Your task to perform on an android device: Add asus rog to the cart on bestbuy Image 0: 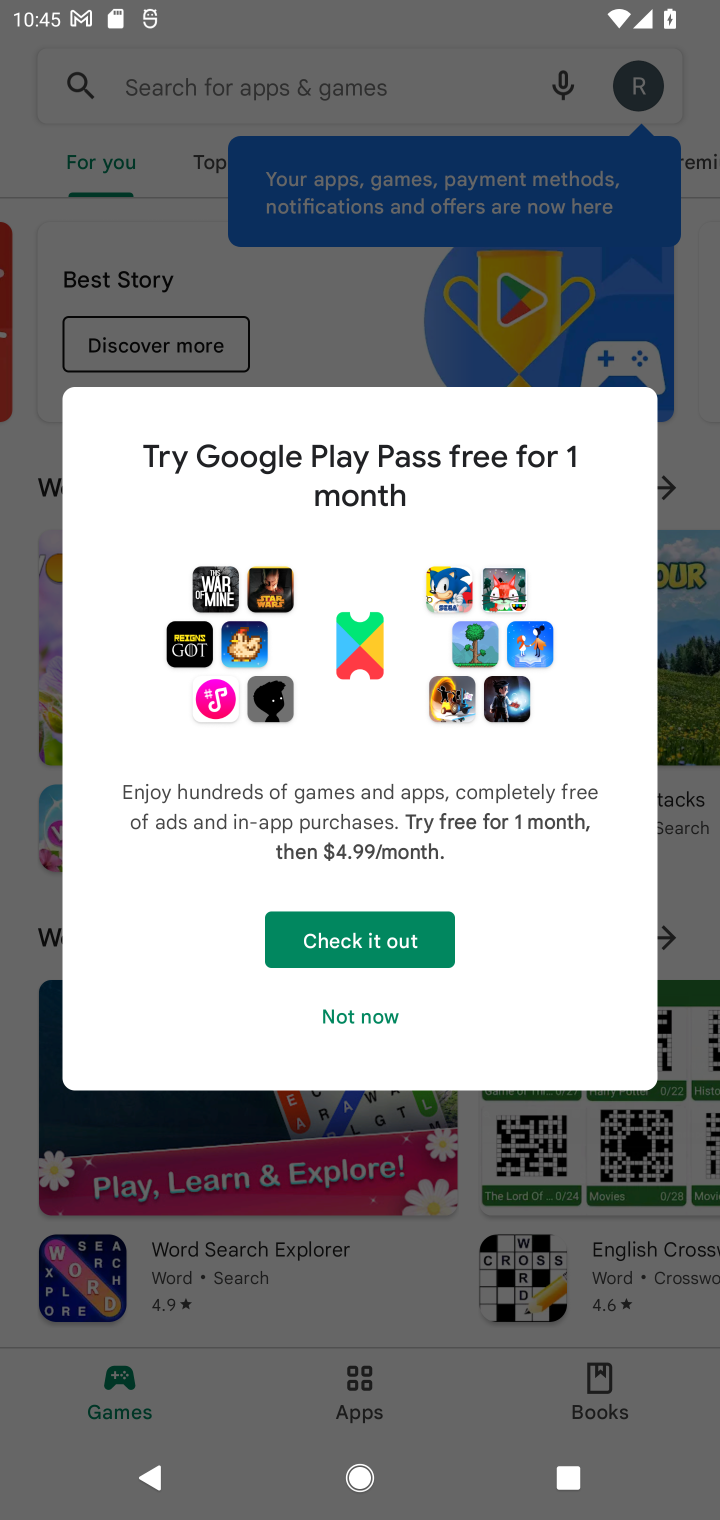
Step 0: click (361, 1013)
Your task to perform on an android device: Add asus rog to the cart on bestbuy Image 1: 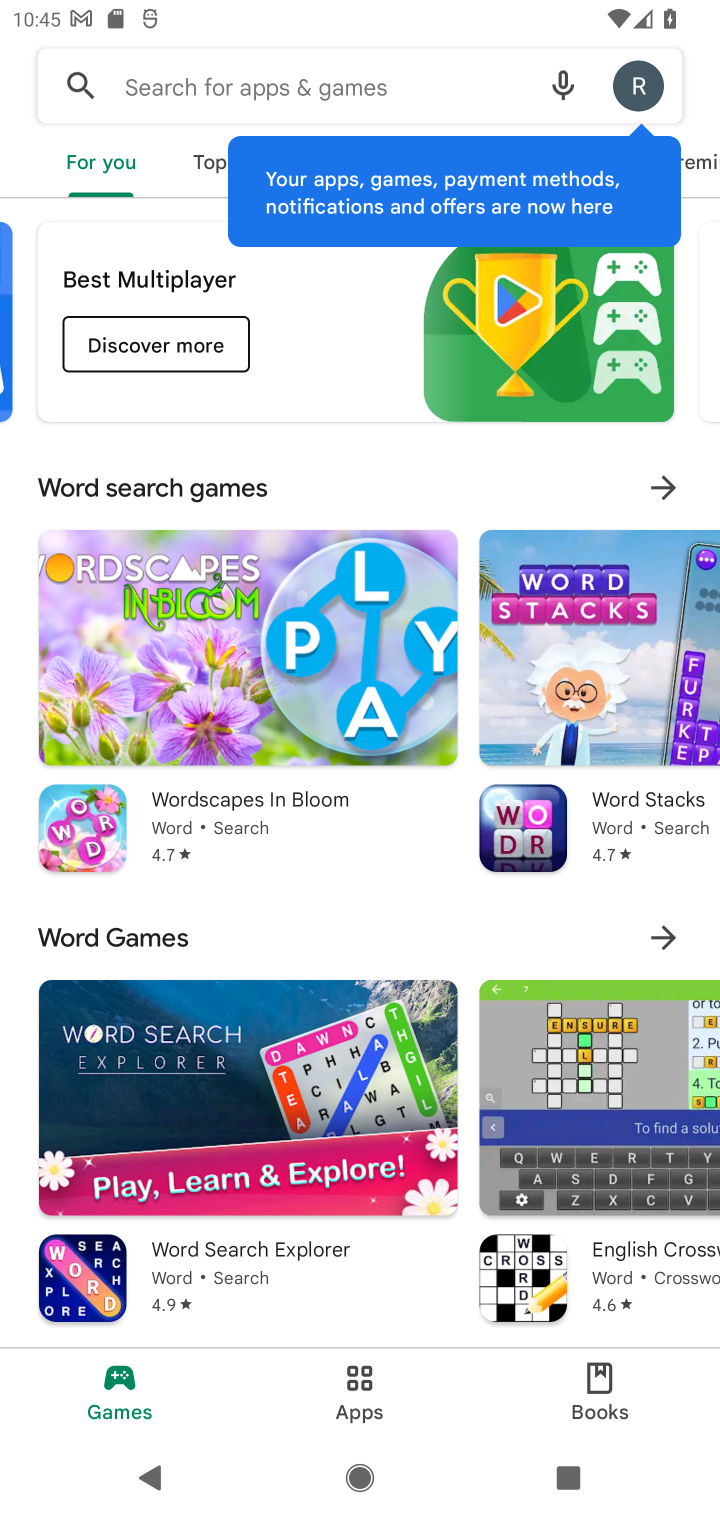
Step 1: press home button
Your task to perform on an android device: Add asus rog to the cart on bestbuy Image 2: 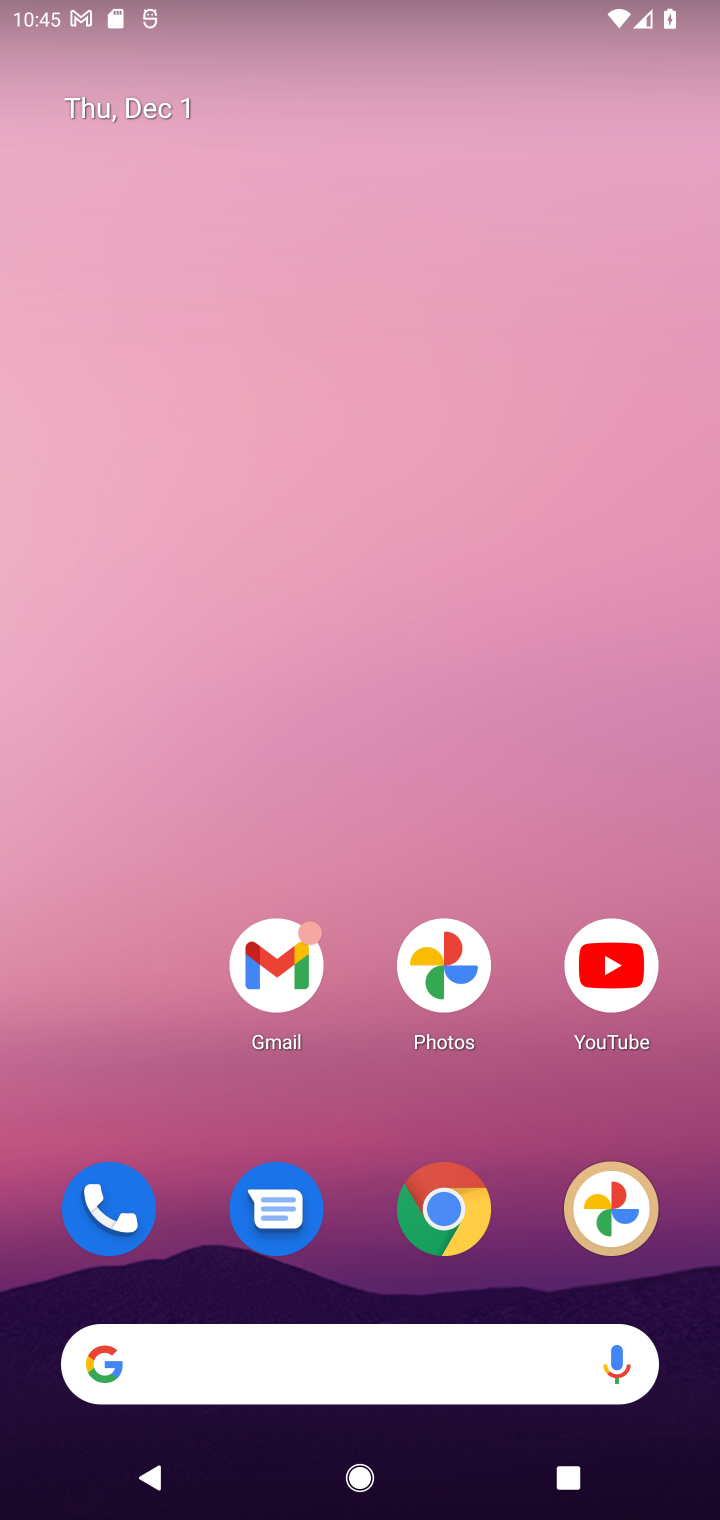
Step 2: click (430, 1204)
Your task to perform on an android device: Add asus rog to the cart on bestbuy Image 3: 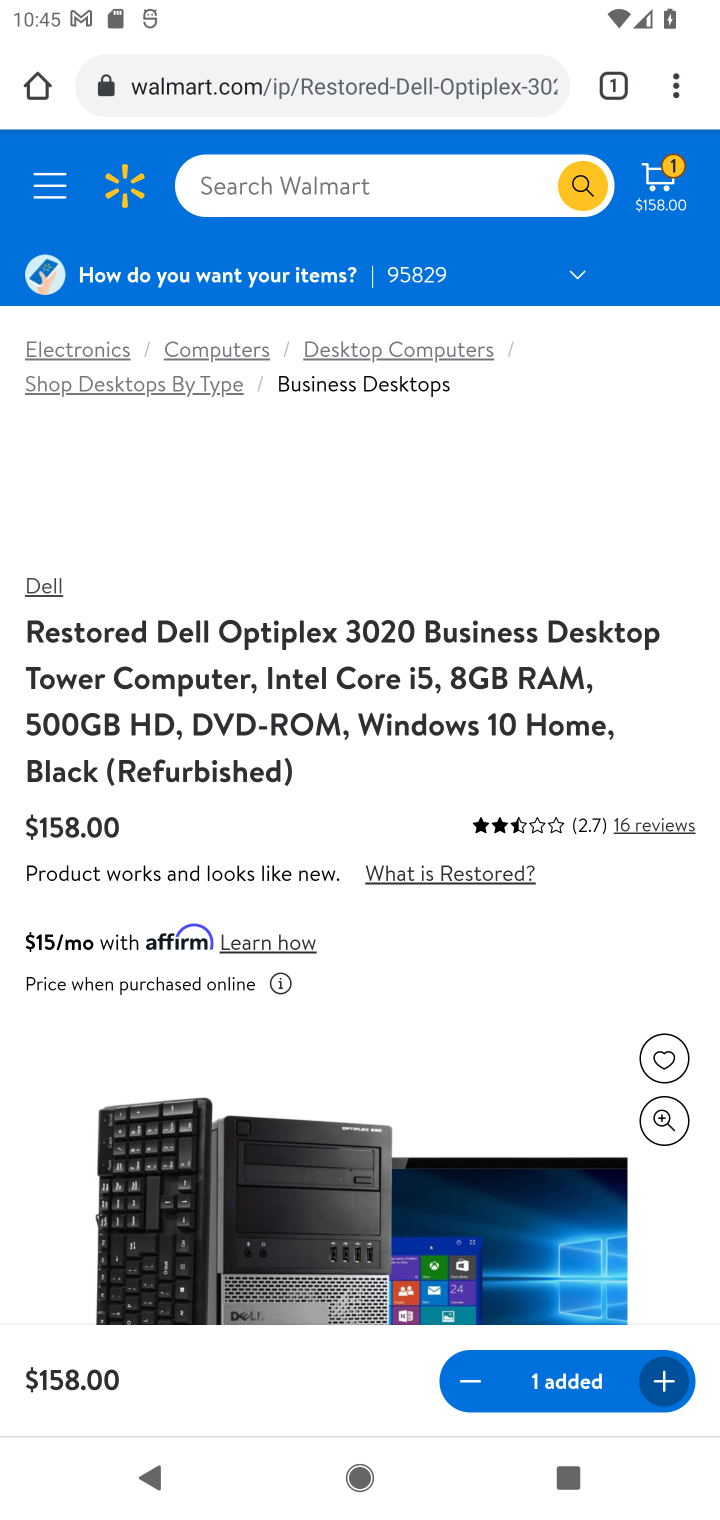
Step 3: click (282, 90)
Your task to perform on an android device: Add asus rog to the cart on bestbuy Image 4: 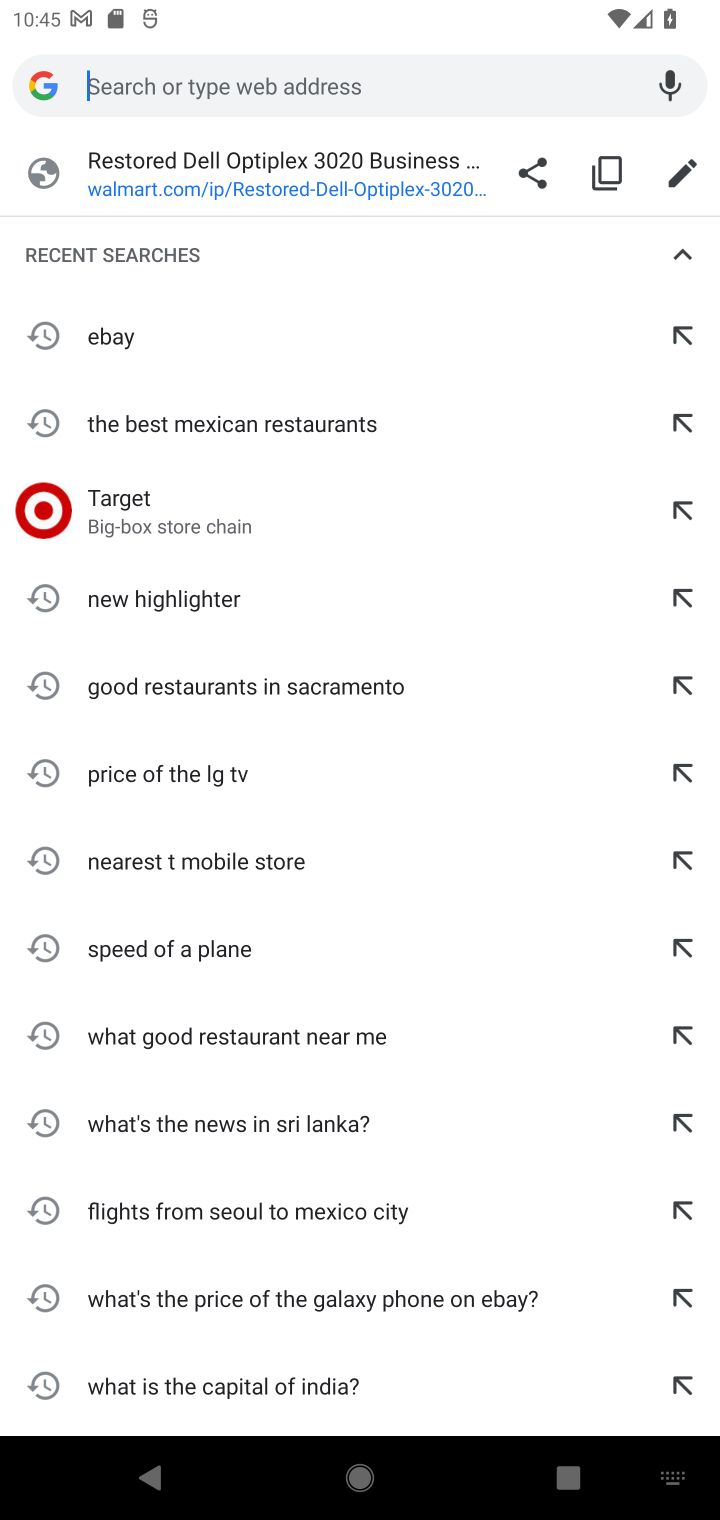
Step 4: type "bestbuy"
Your task to perform on an android device: Add asus rog to the cart on bestbuy Image 5: 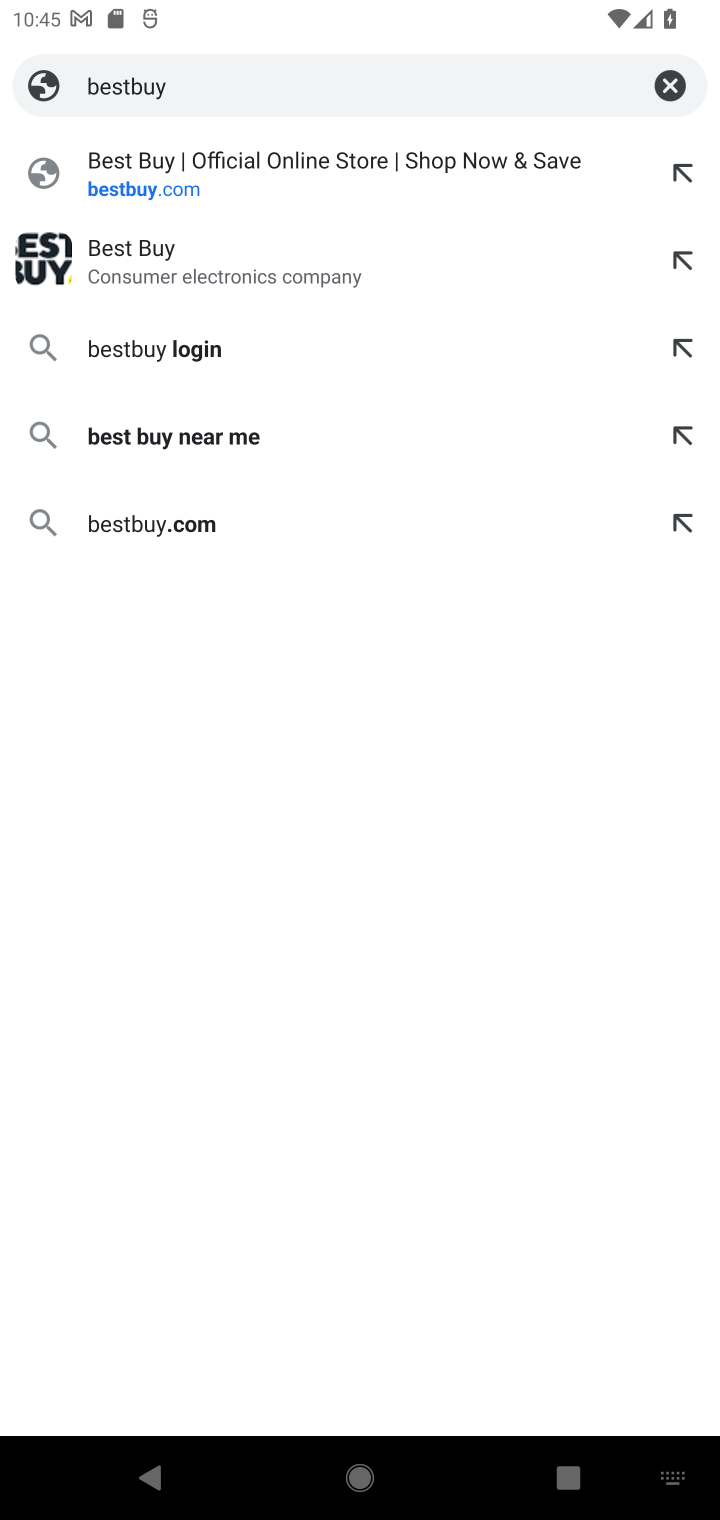
Step 5: click (203, 184)
Your task to perform on an android device: Add asus rog to the cart on bestbuy Image 6: 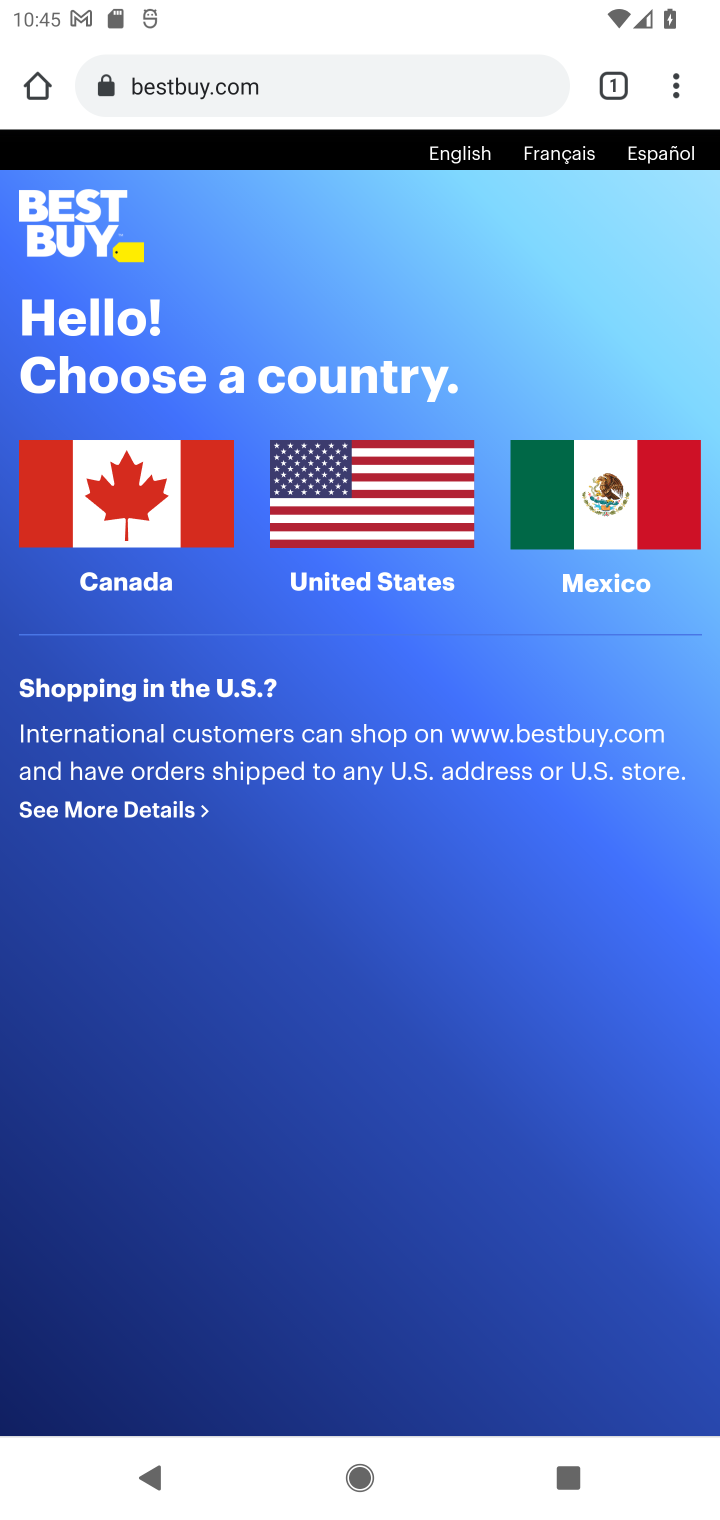
Step 6: click (381, 478)
Your task to perform on an android device: Add asus rog to the cart on bestbuy Image 7: 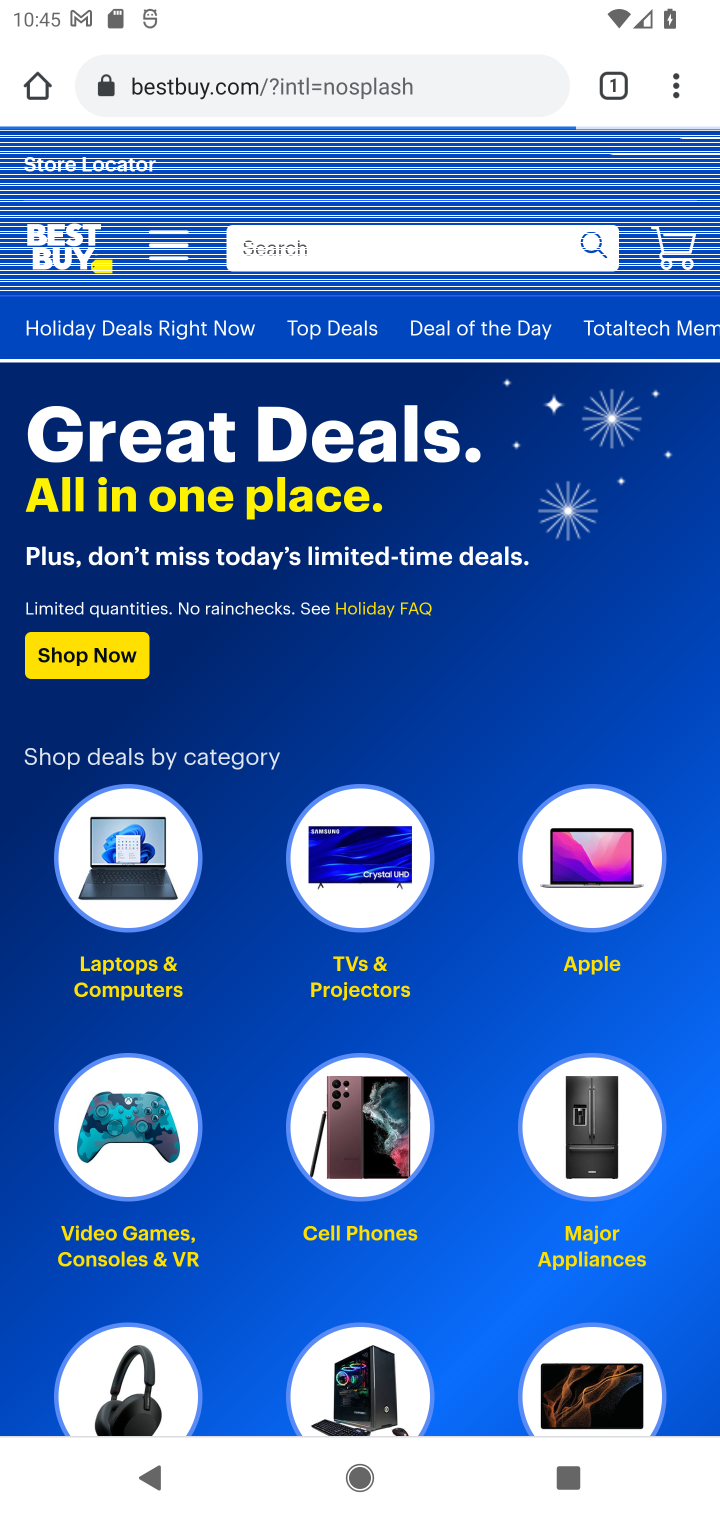
Step 7: click (321, 251)
Your task to perform on an android device: Add asus rog to the cart on bestbuy Image 8: 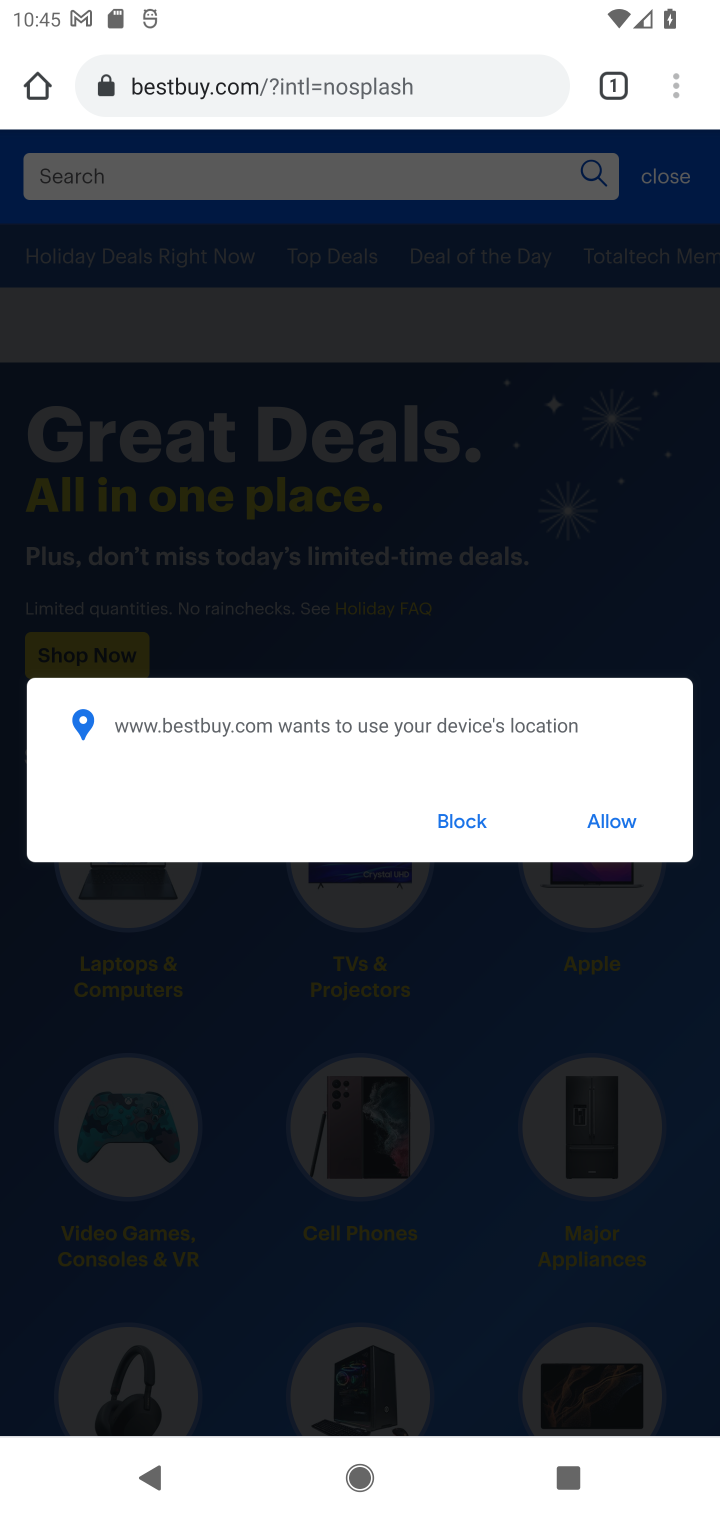
Step 8: click (462, 824)
Your task to perform on an android device: Add asus rog to the cart on bestbuy Image 9: 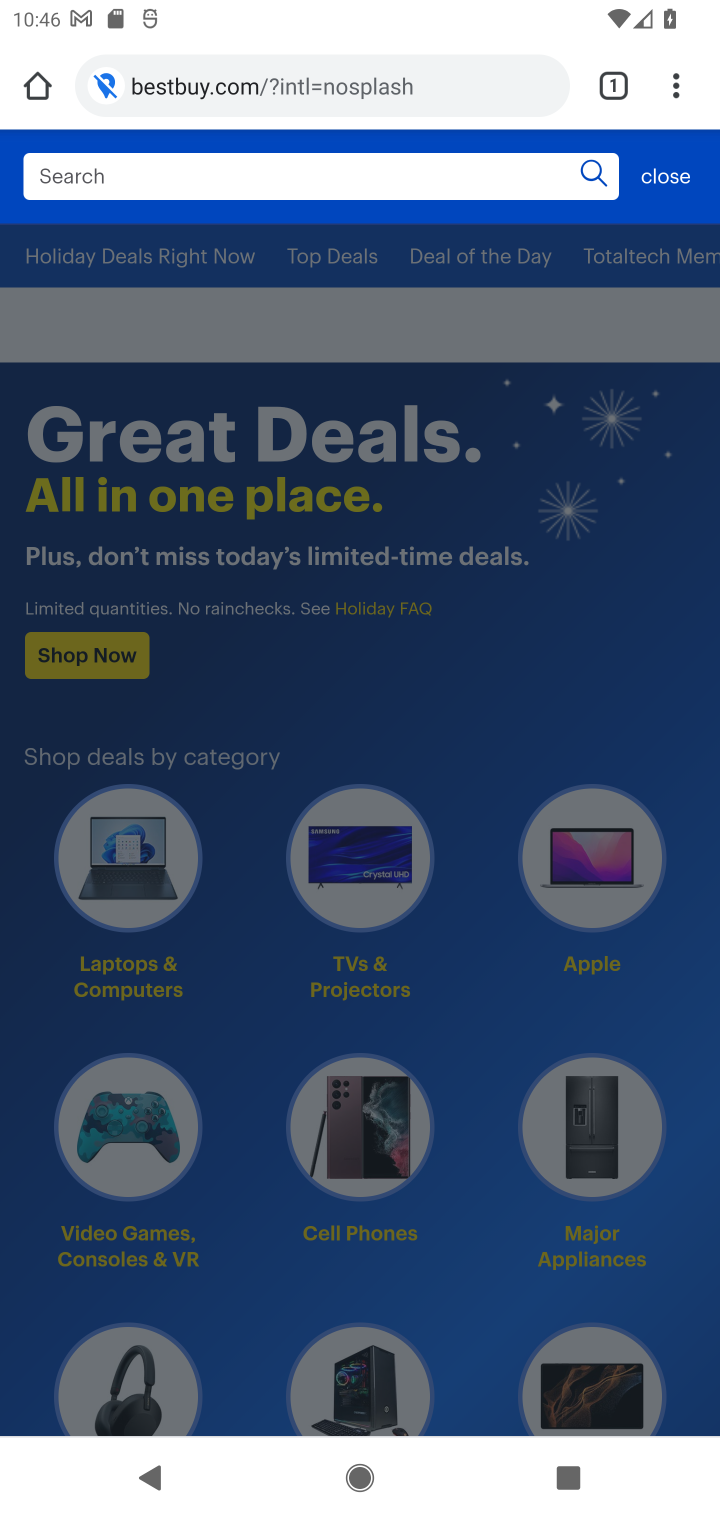
Step 9: type "asus rog"
Your task to perform on an android device: Add asus rog to the cart on bestbuy Image 10: 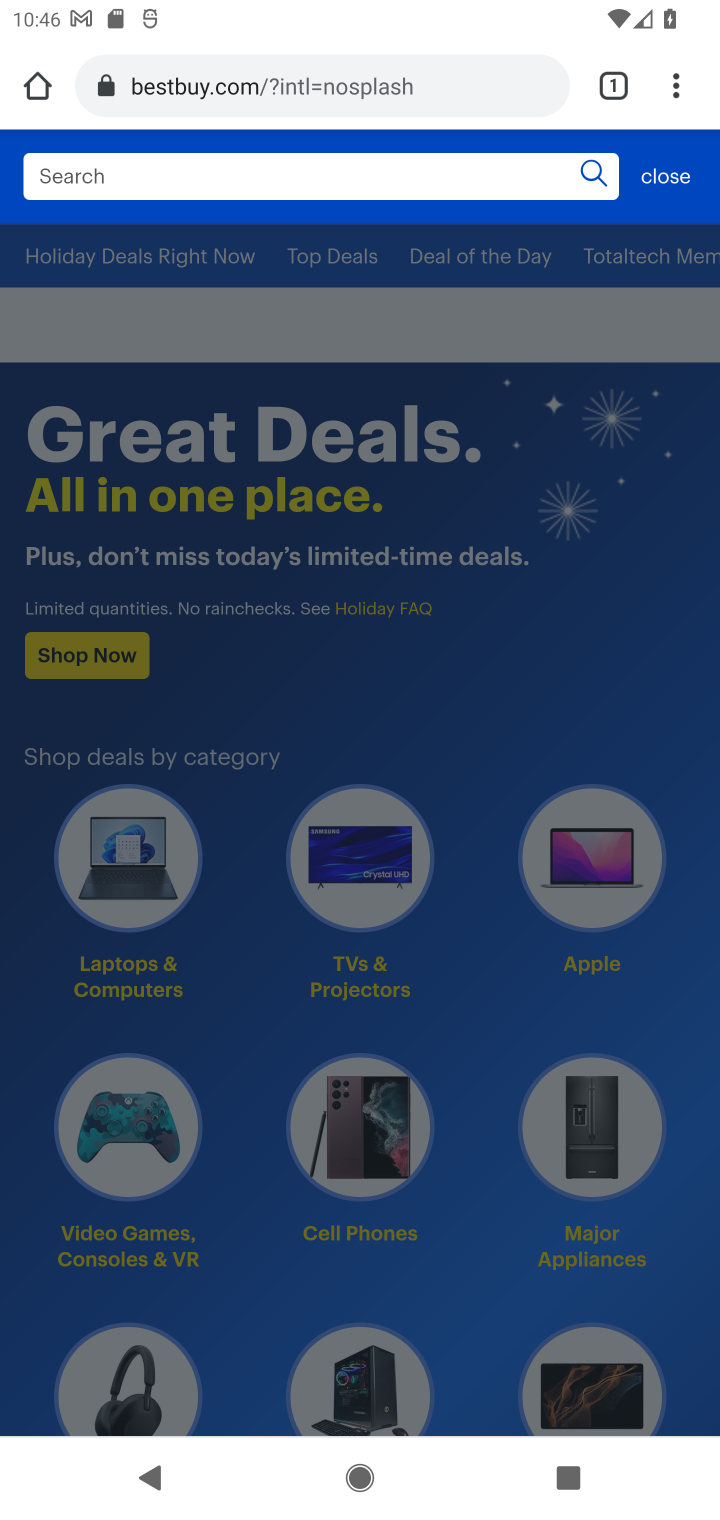
Step 10: click (160, 173)
Your task to perform on an android device: Add asus rog to the cart on bestbuy Image 11: 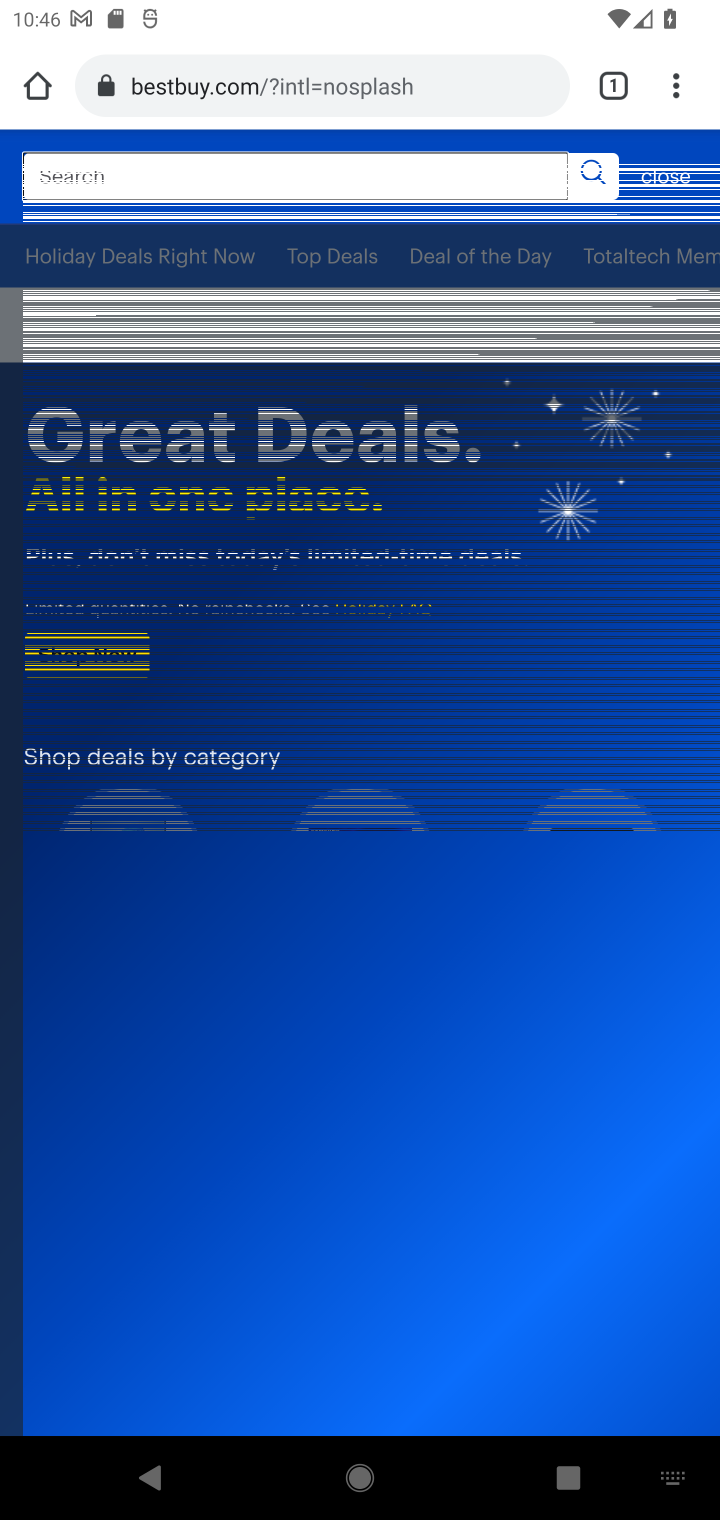
Step 11: type "asus rog"
Your task to perform on an android device: Add asus rog to the cart on bestbuy Image 12: 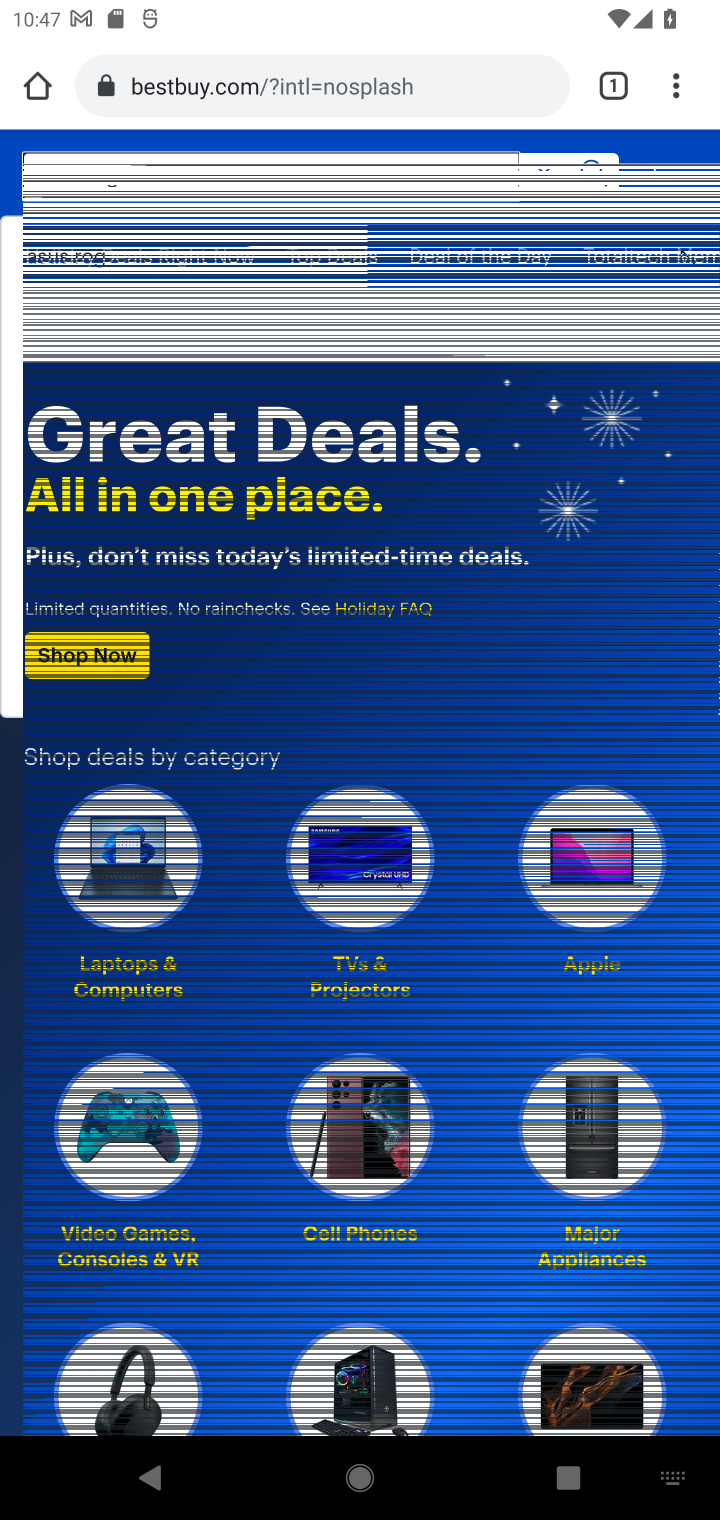
Step 12: click (67, 260)
Your task to perform on an android device: Add asus rog to the cart on bestbuy Image 13: 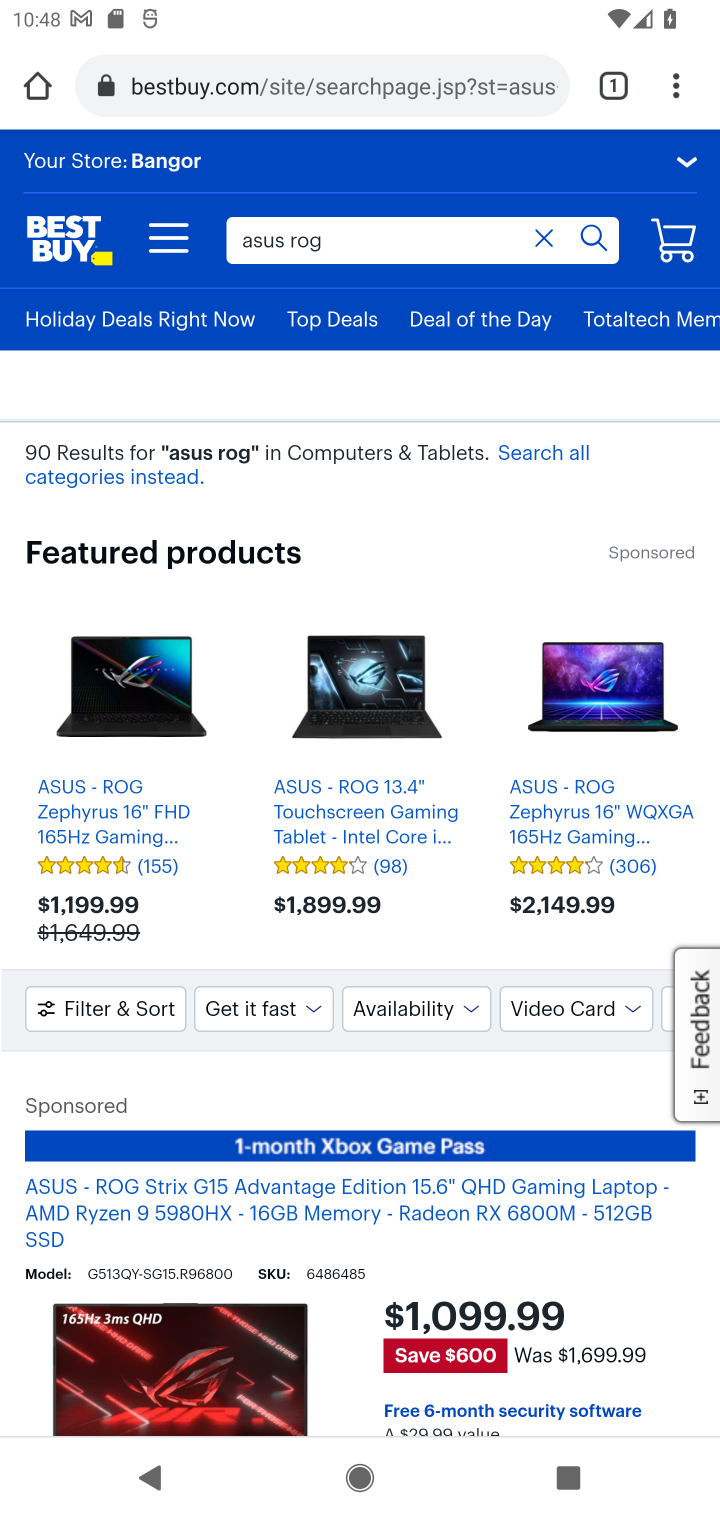
Step 13: click (186, 1385)
Your task to perform on an android device: Add asus rog to the cart on bestbuy Image 14: 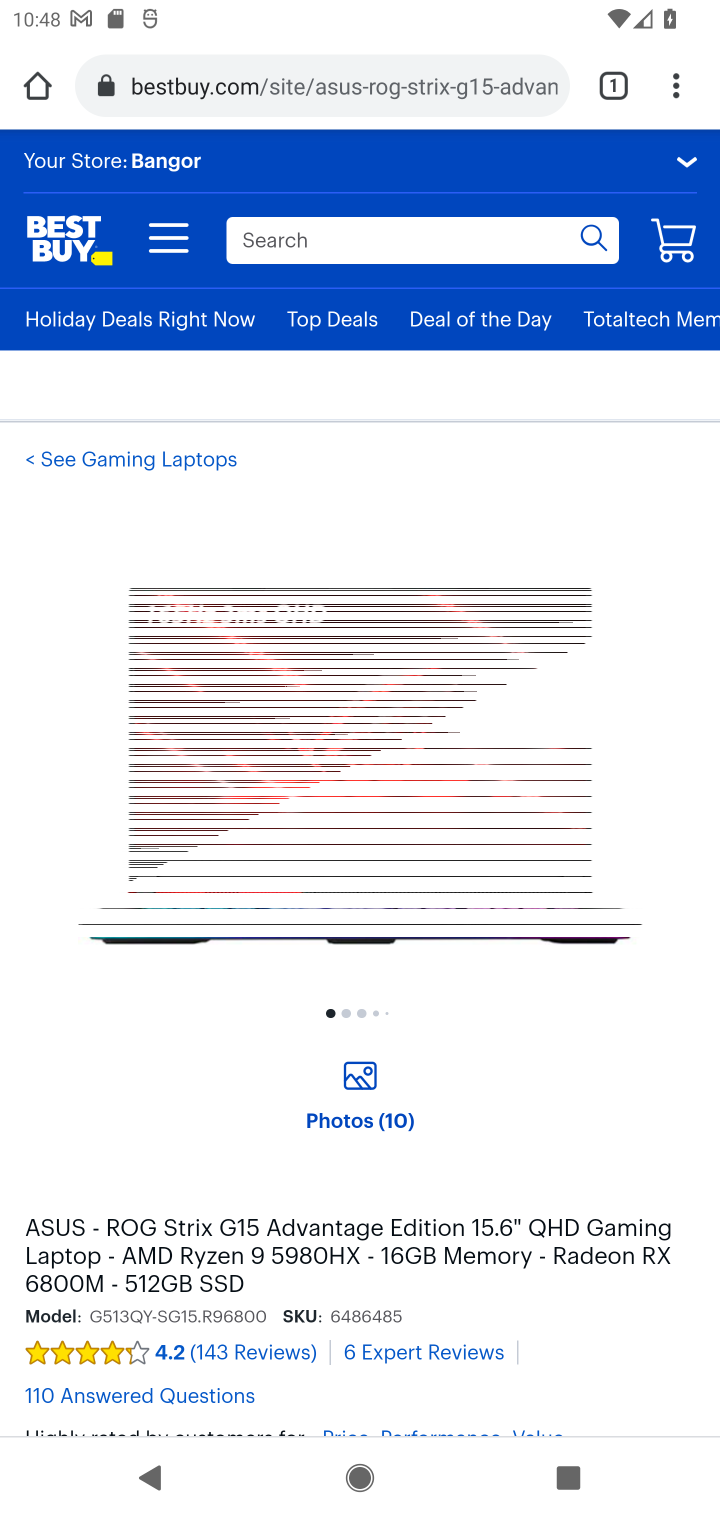
Step 14: drag from (359, 1243) to (333, 665)
Your task to perform on an android device: Add asus rog to the cart on bestbuy Image 15: 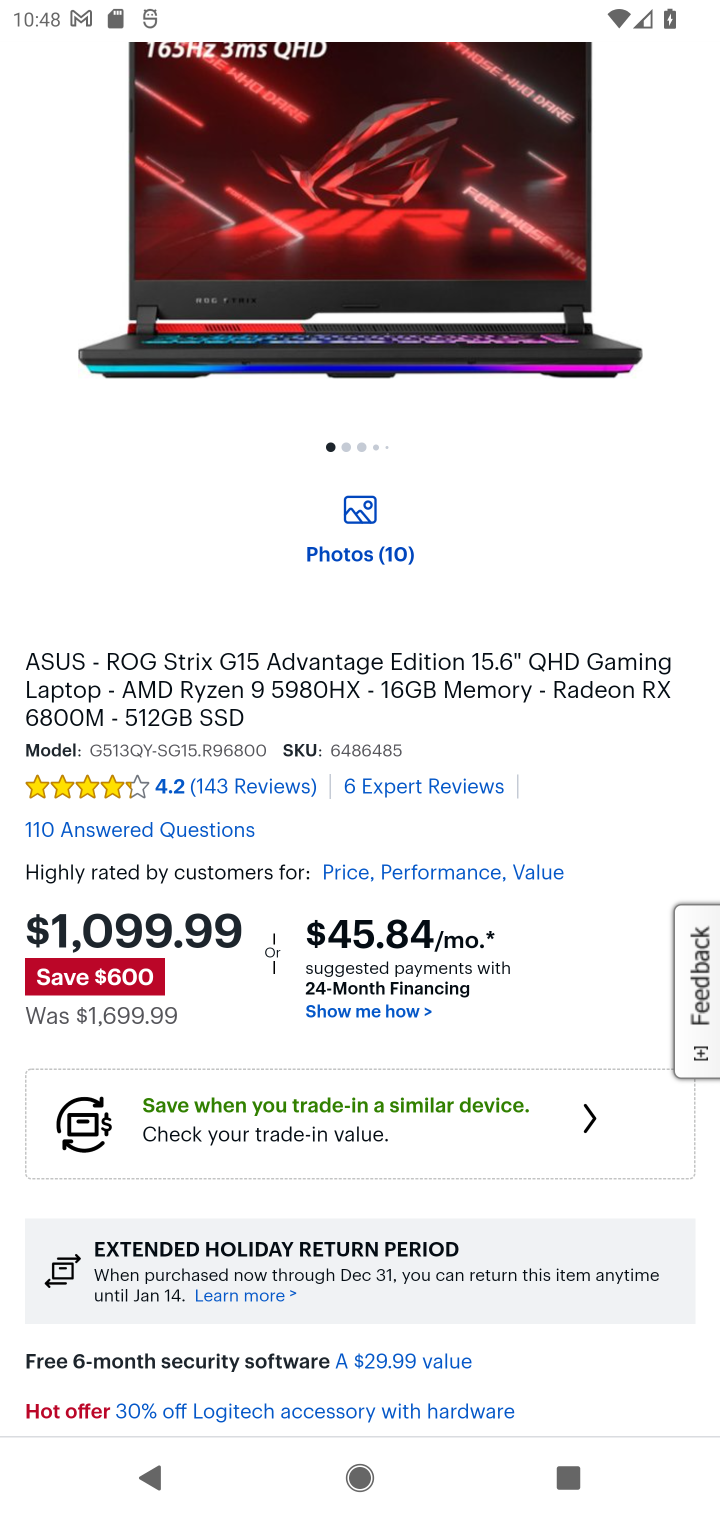
Step 15: drag from (338, 1264) to (345, 491)
Your task to perform on an android device: Add asus rog to the cart on bestbuy Image 16: 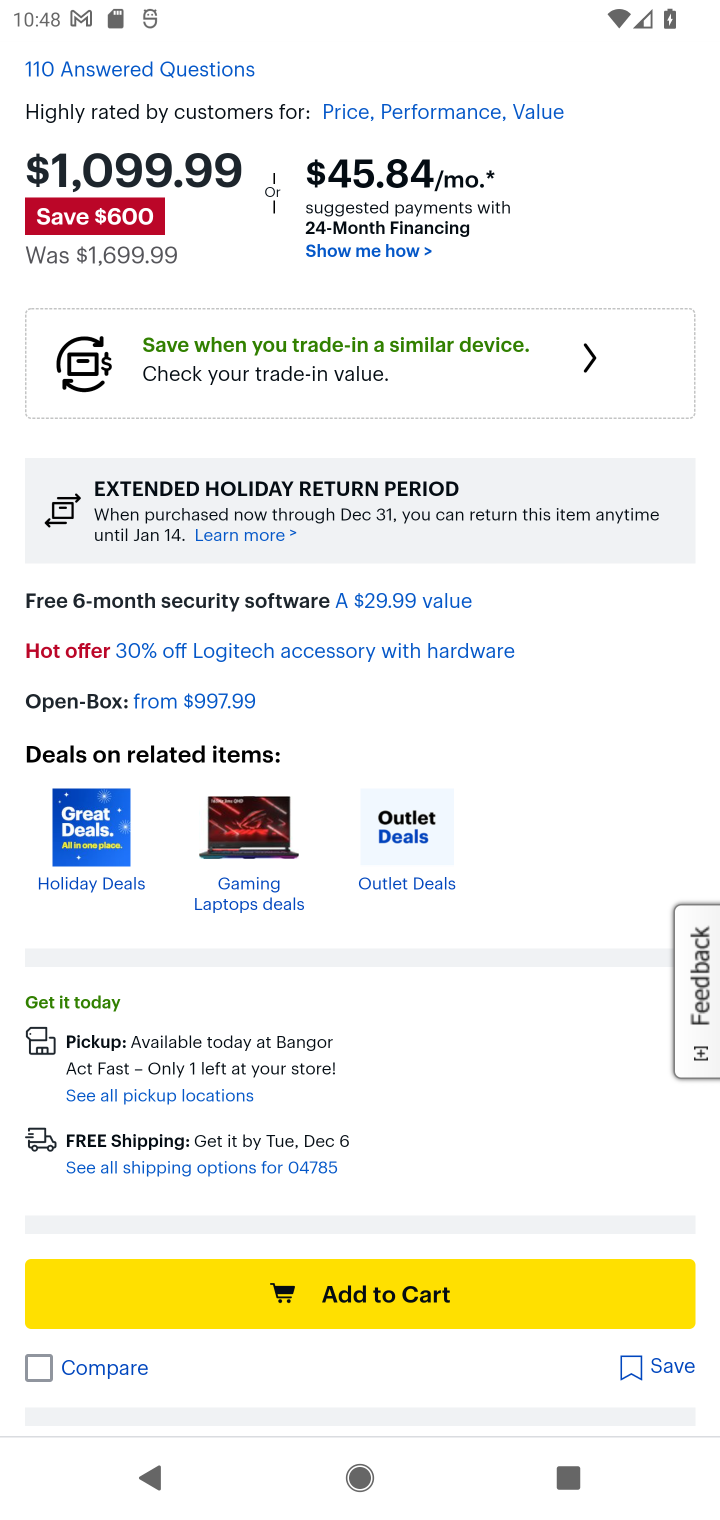
Step 16: click (362, 1282)
Your task to perform on an android device: Add asus rog to the cart on bestbuy Image 17: 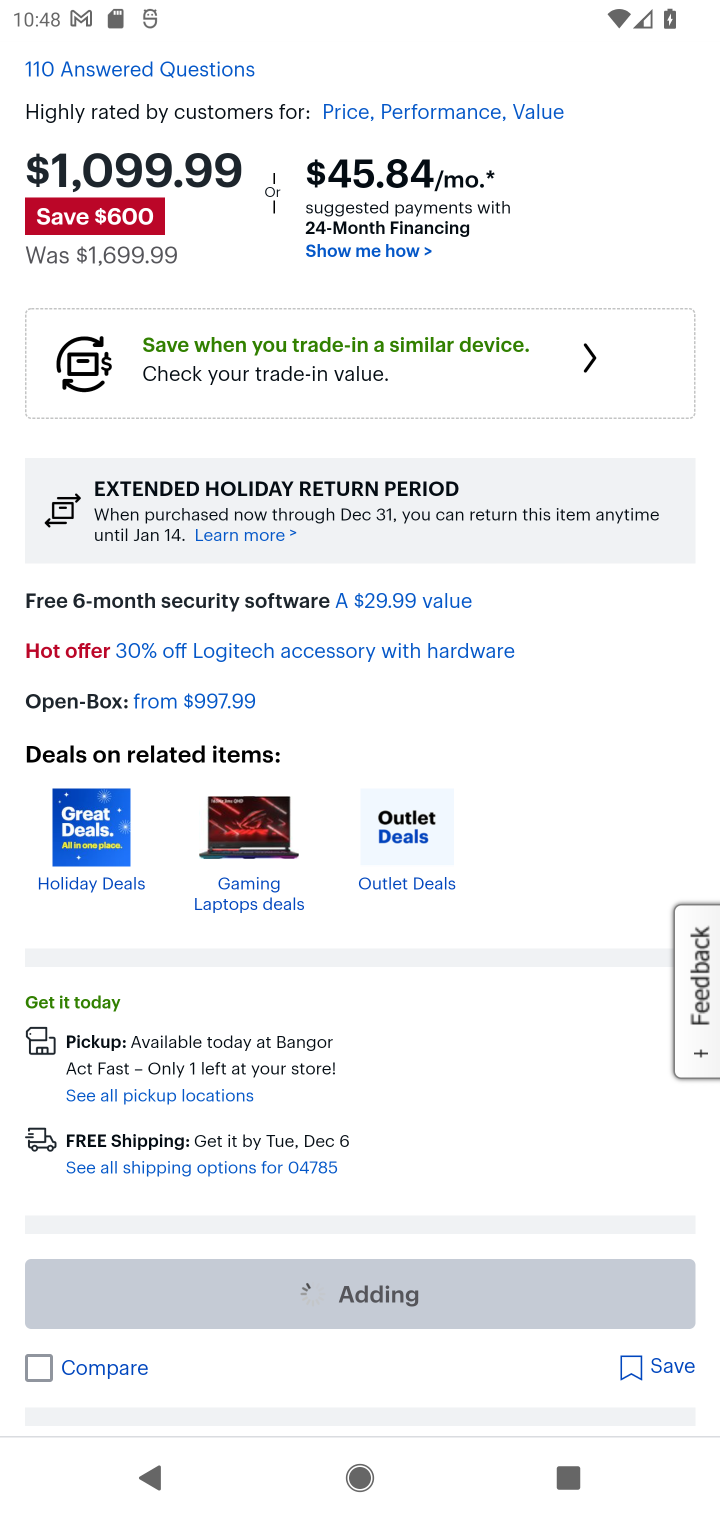
Step 17: task complete